Your task to perform on an android device: open app "DuckDuckGo Privacy Browser" Image 0: 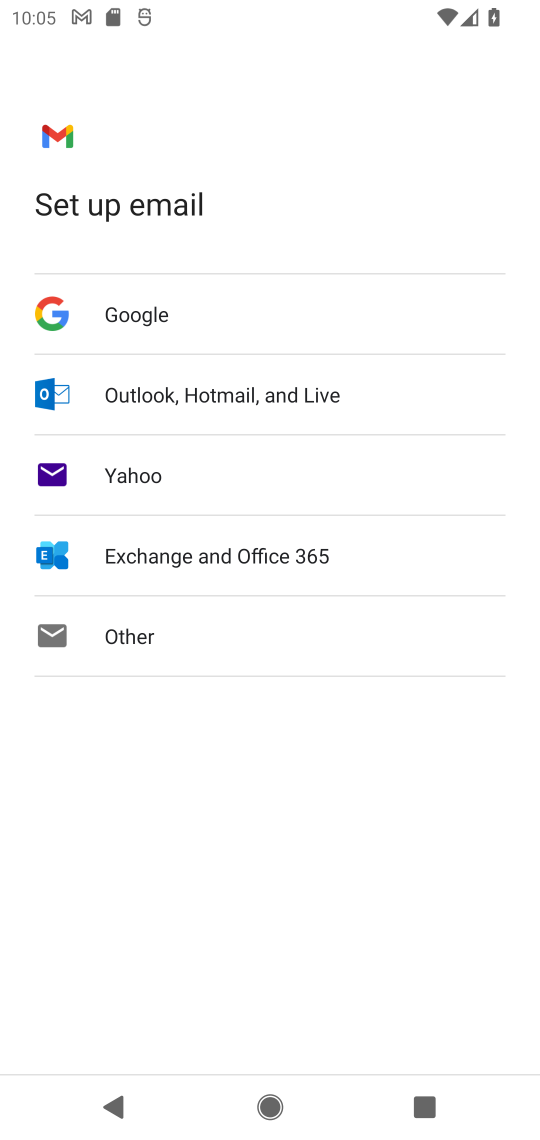
Step 0: press home button
Your task to perform on an android device: open app "DuckDuckGo Privacy Browser" Image 1: 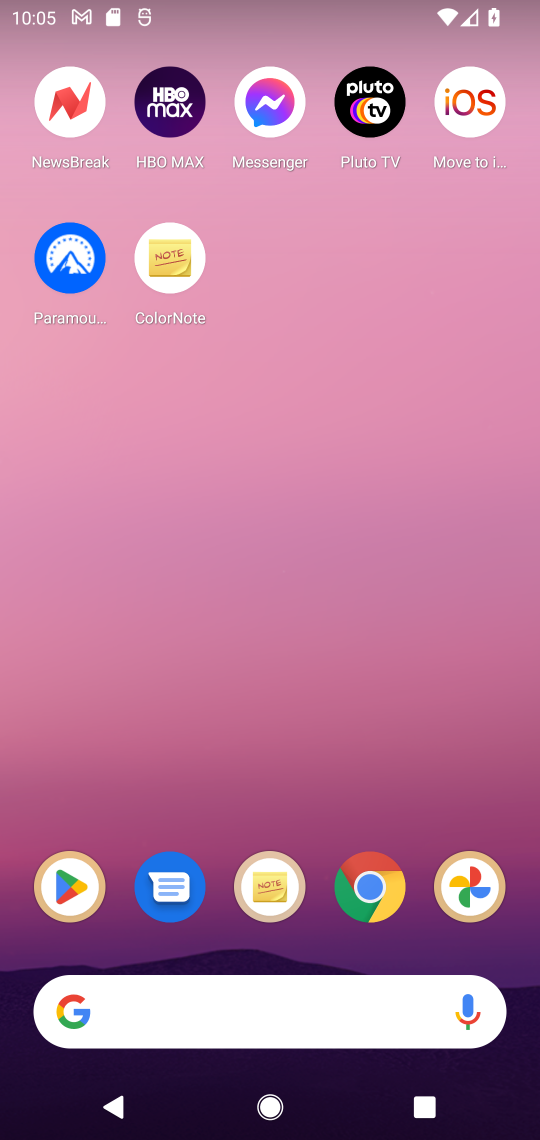
Step 1: click (50, 883)
Your task to perform on an android device: open app "DuckDuckGo Privacy Browser" Image 2: 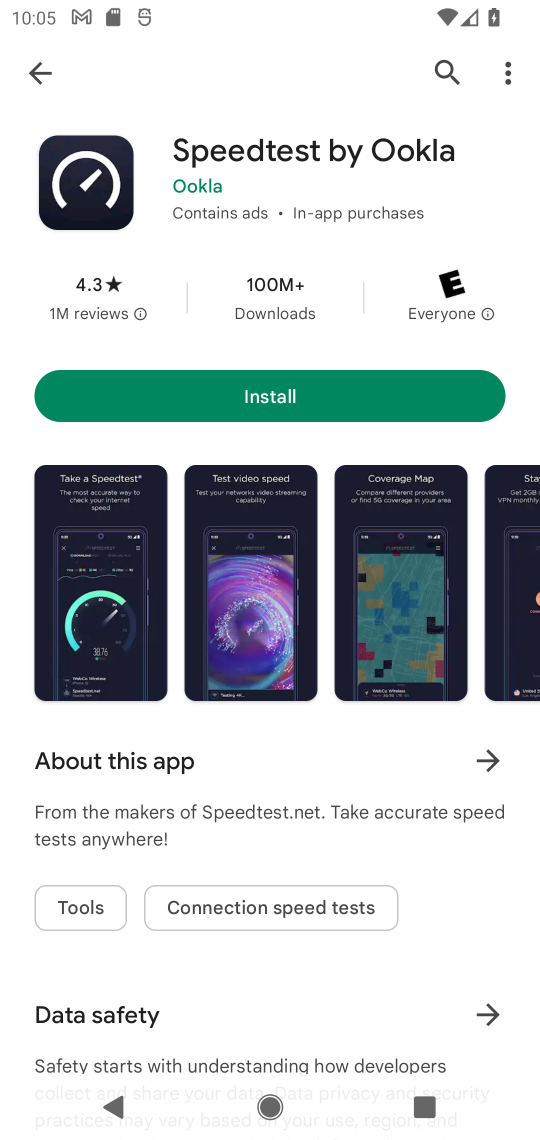
Step 2: click (446, 70)
Your task to perform on an android device: open app "DuckDuckGo Privacy Browser" Image 3: 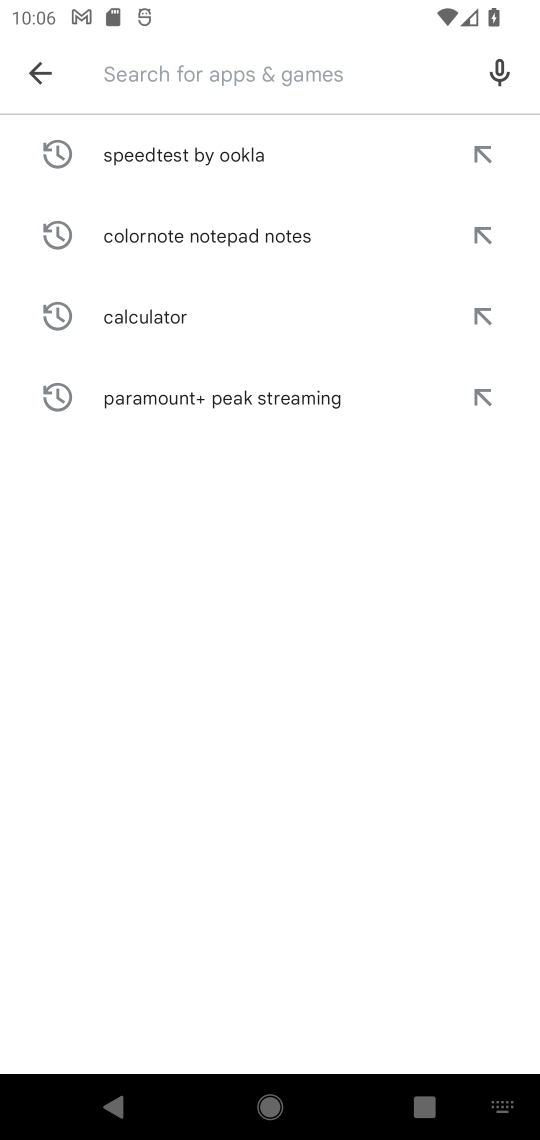
Step 3: type "duckduckgo privacy browser"
Your task to perform on an android device: open app "DuckDuckGo Privacy Browser" Image 4: 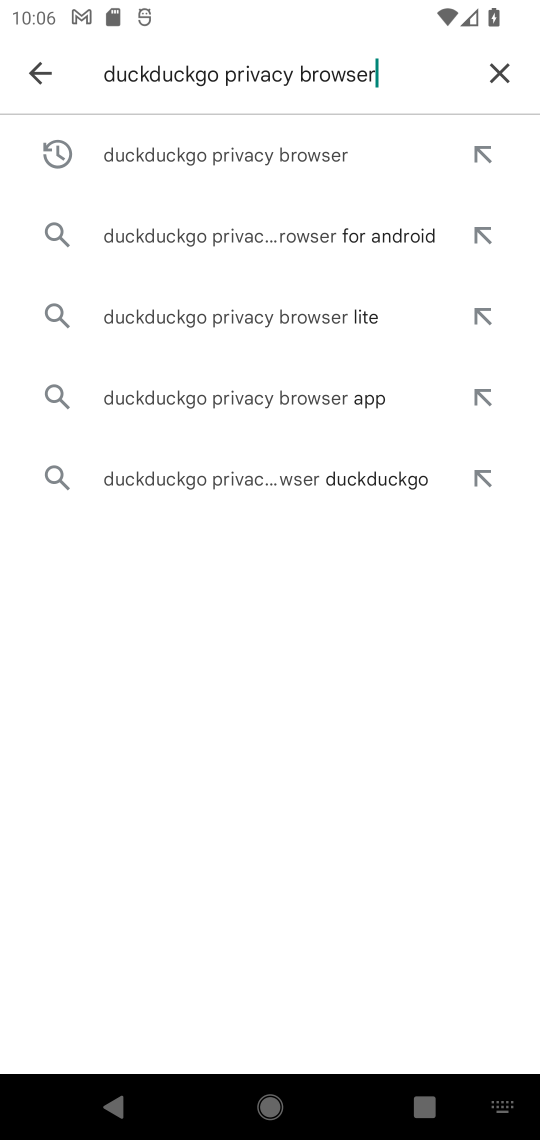
Step 4: click (393, 134)
Your task to perform on an android device: open app "DuckDuckGo Privacy Browser" Image 5: 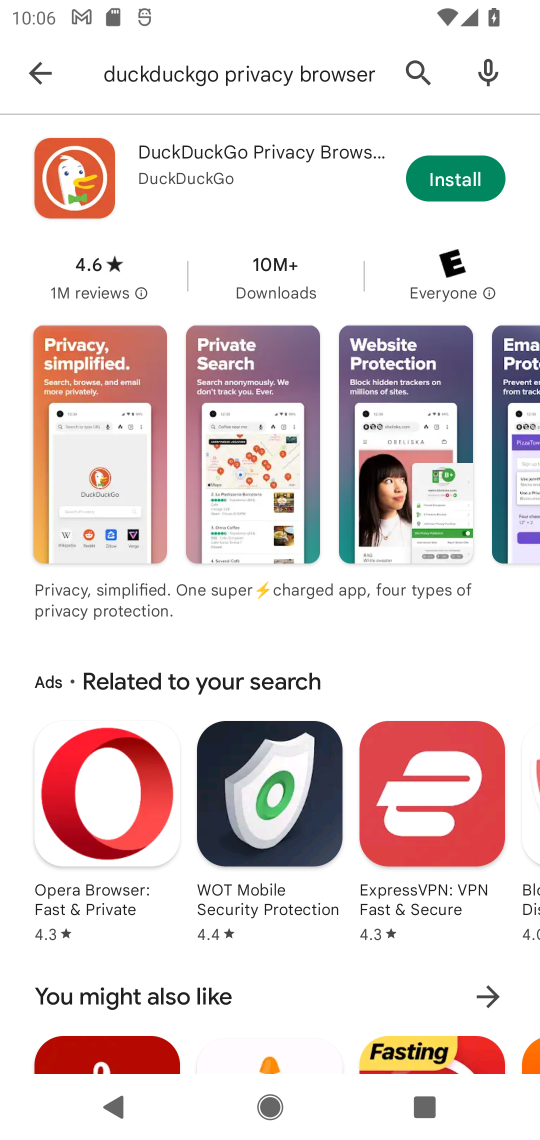
Step 5: click (315, 140)
Your task to perform on an android device: open app "DuckDuckGo Privacy Browser" Image 6: 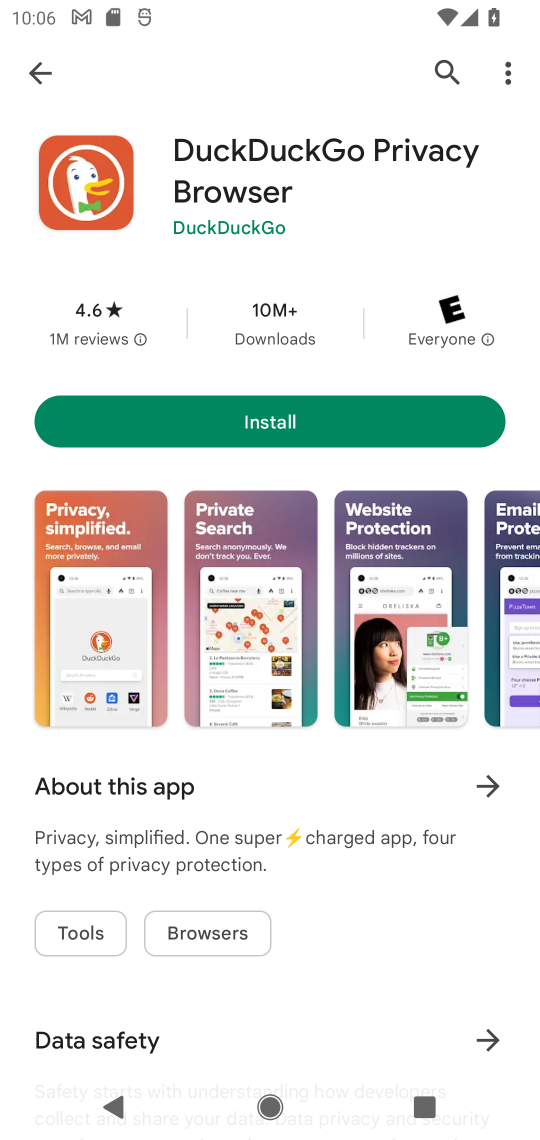
Step 6: task complete